Your task to perform on an android device: Open wifi settings Image 0: 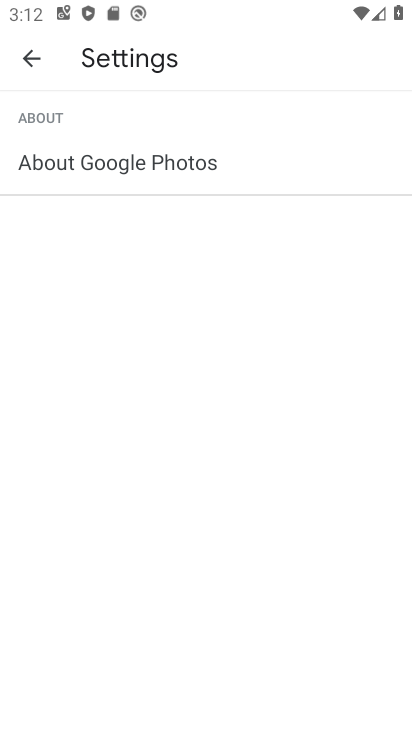
Step 0: press home button
Your task to perform on an android device: Open wifi settings Image 1: 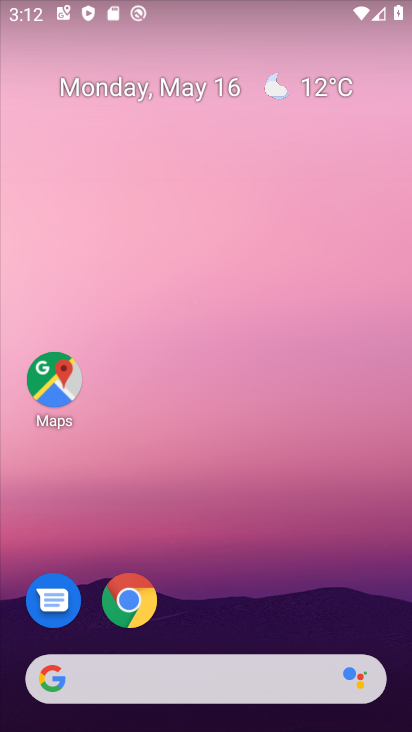
Step 1: drag from (219, 647) to (171, 0)
Your task to perform on an android device: Open wifi settings Image 2: 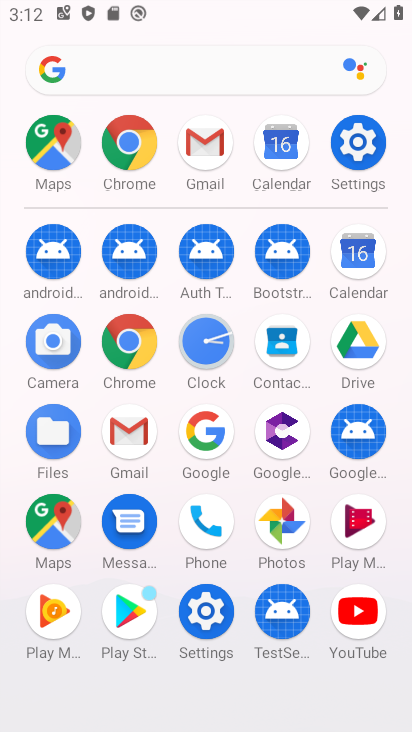
Step 2: click (351, 154)
Your task to perform on an android device: Open wifi settings Image 3: 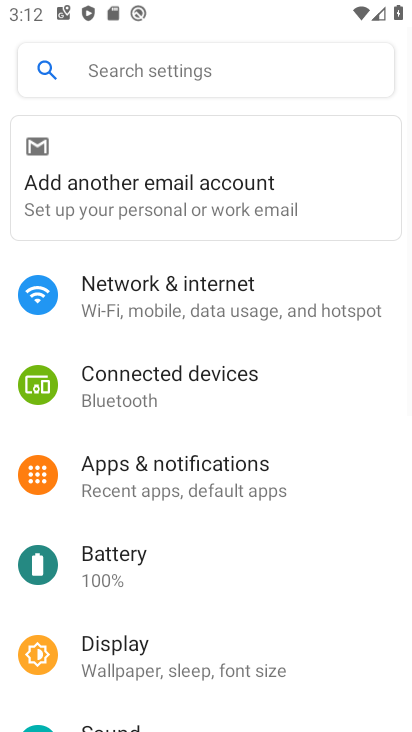
Step 3: click (162, 320)
Your task to perform on an android device: Open wifi settings Image 4: 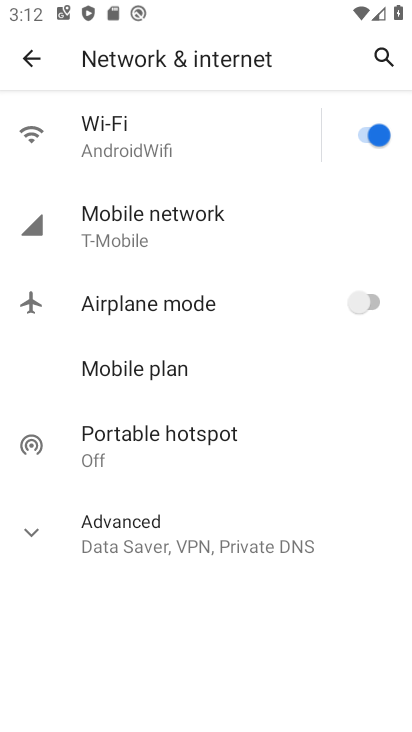
Step 4: click (141, 153)
Your task to perform on an android device: Open wifi settings Image 5: 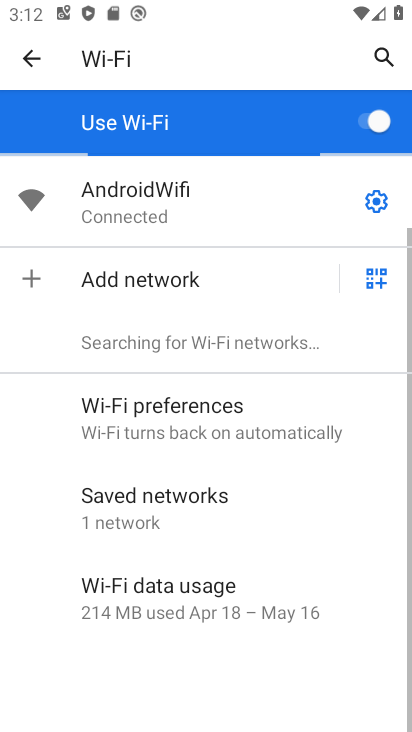
Step 5: task complete